Your task to perform on an android device: delete the emails in spam in the gmail app Image 0: 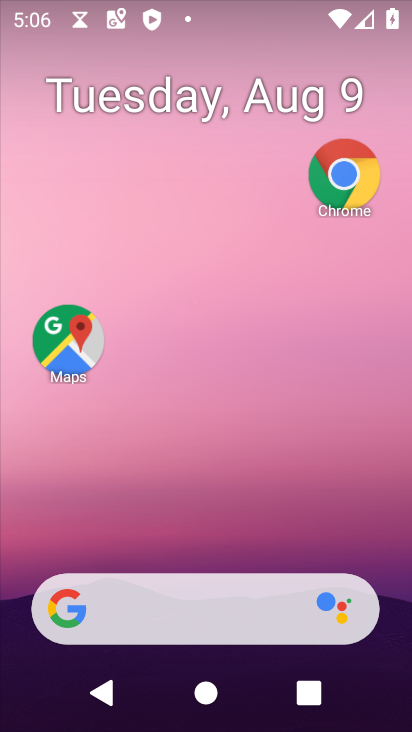
Step 0: drag from (232, 545) to (300, 91)
Your task to perform on an android device: delete the emails in spam in the gmail app Image 1: 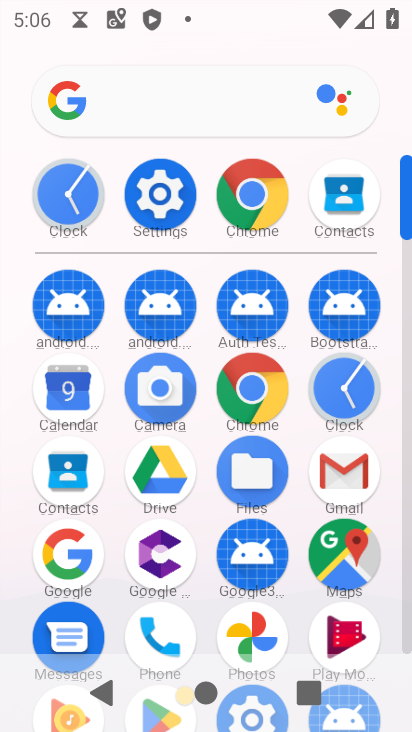
Step 1: click (338, 466)
Your task to perform on an android device: delete the emails in spam in the gmail app Image 2: 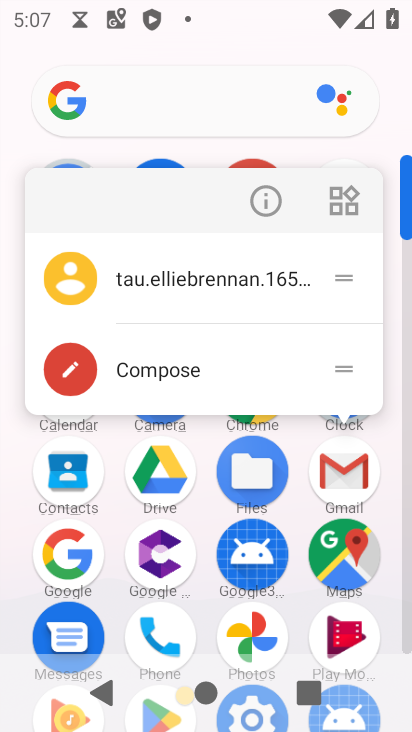
Step 2: click (262, 201)
Your task to perform on an android device: delete the emails in spam in the gmail app Image 3: 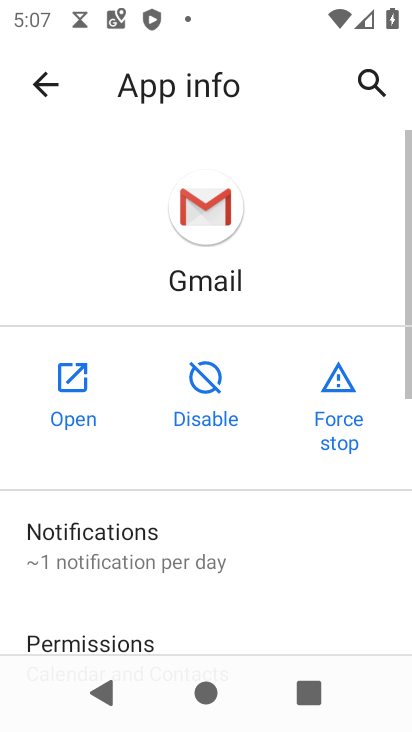
Step 3: click (63, 367)
Your task to perform on an android device: delete the emails in spam in the gmail app Image 4: 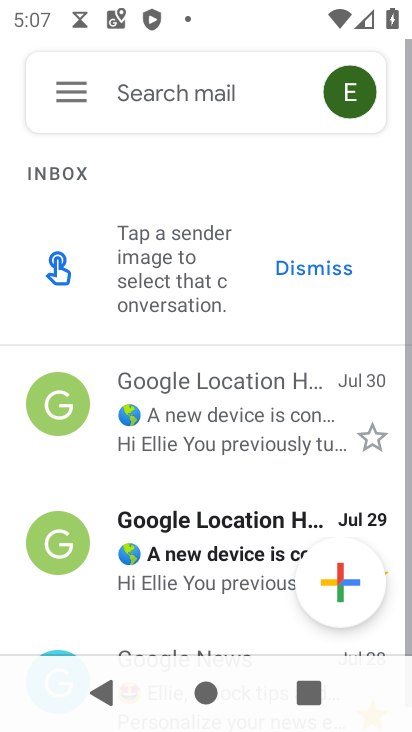
Step 4: drag from (235, 462) to (250, 72)
Your task to perform on an android device: delete the emails in spam in the gmail app Image 5: 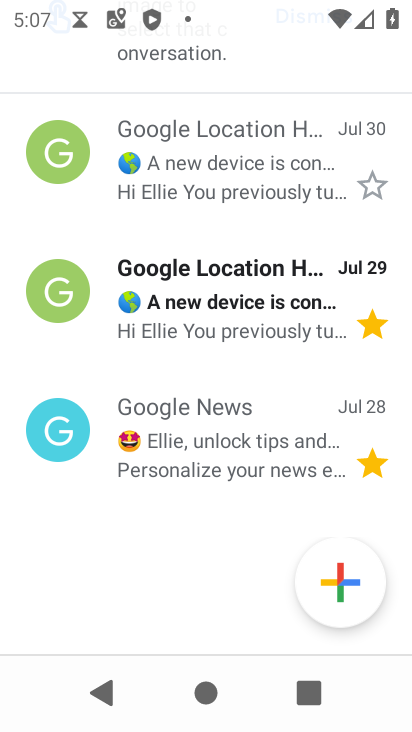
Step 5: drag from (246, 90) to (246, 638)
Your task to perform on an android device: delete the emails in spam in the gmail app Image 6: 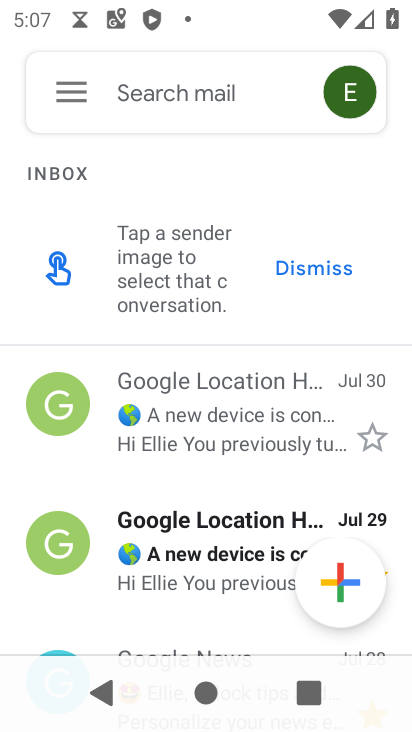
Step 6: drag from (180, 483) to (122, 10)
Your task to perform on an android device: delete the emails in spam in the gmail app Image 7: 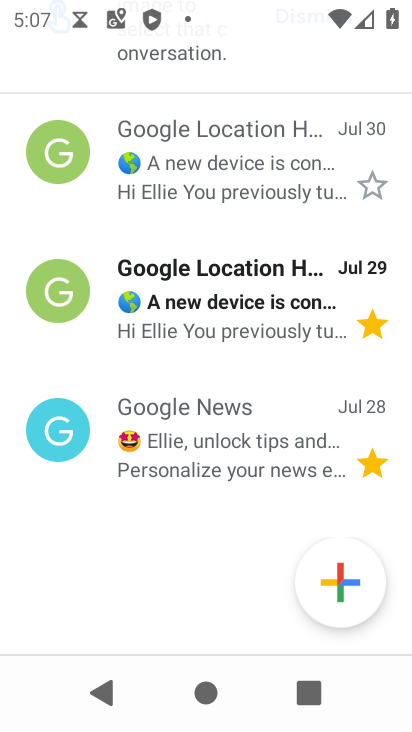
Step 7: drag from (198, 239) to (278, 697)
Your task to perform on an android device: delete the emails in spam in the gmail app Image 8: 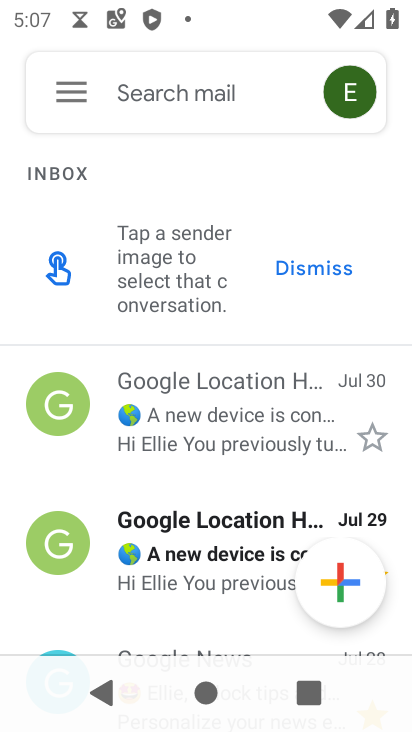
Step 8: click (60, 72)
Your task to perform on an android device: delete the emails in spam in the gmail app Image 9: 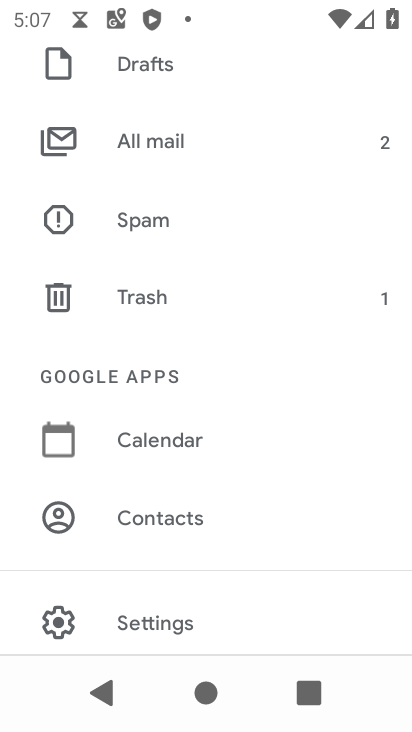
Step 9: drag from (261, 445) to (253, 133)
Your task to perform on an android device: delete the emails in spam in the gmail app Image 10: 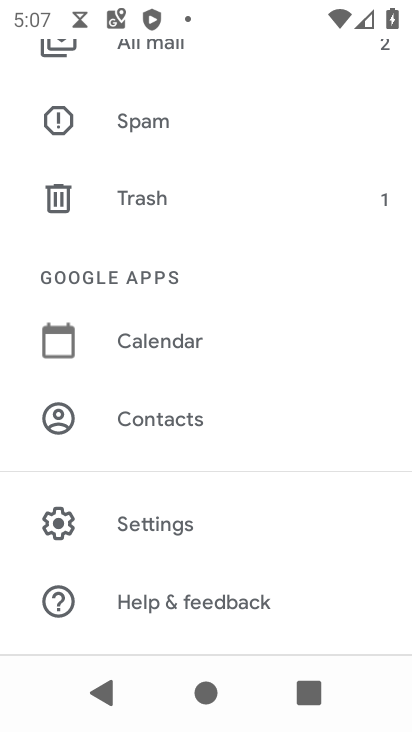
Step 10: click (182, 85)
Your task to perform on an android device: delete the emails in spam in the gmail app Image 11: 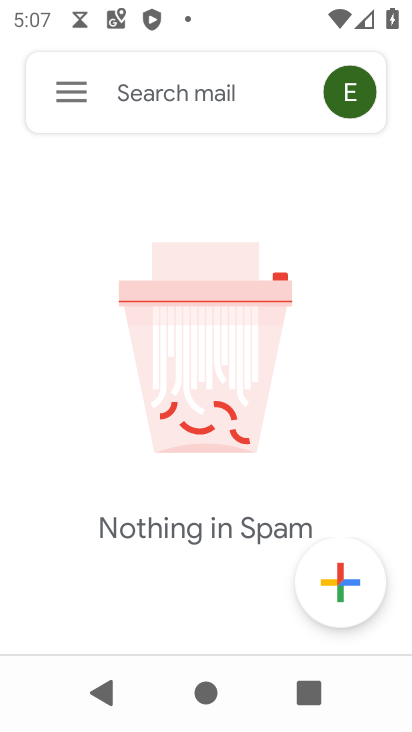
Step 11: drag from (226, 429) to (208, 244)
Your task to perform on an android device: delete the emails in spam in the gmail app Image 12: 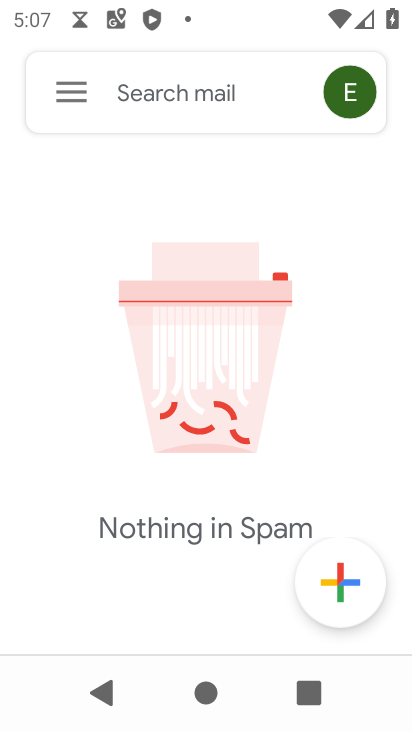
Step 12: click (56, 80)
Your task to perform on an android device: delete the emails in spam in the gmail app Image 13: 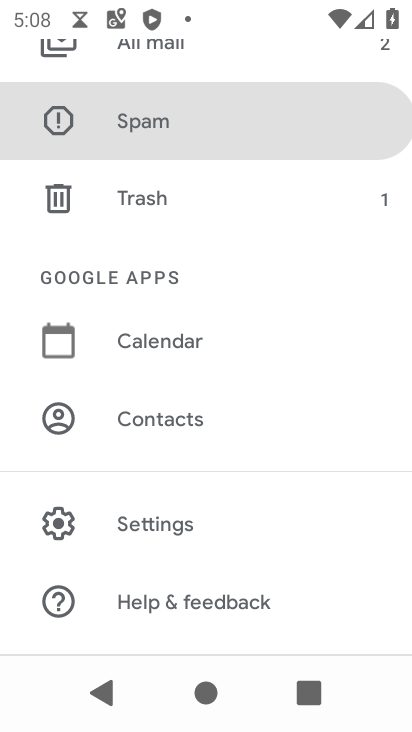
Step 13: click (166, 123)
Your task to perform on an android device: delete the emails in spam in the gmail app Image 14: 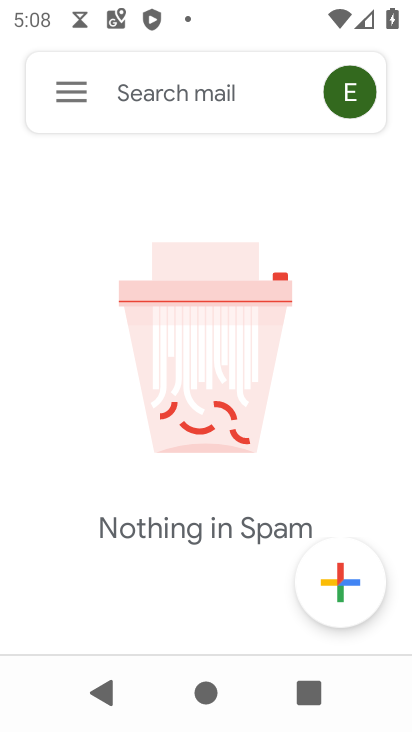
Step 14: task complete